Your task to perform on an android device: When is my next meeting? Image 0: 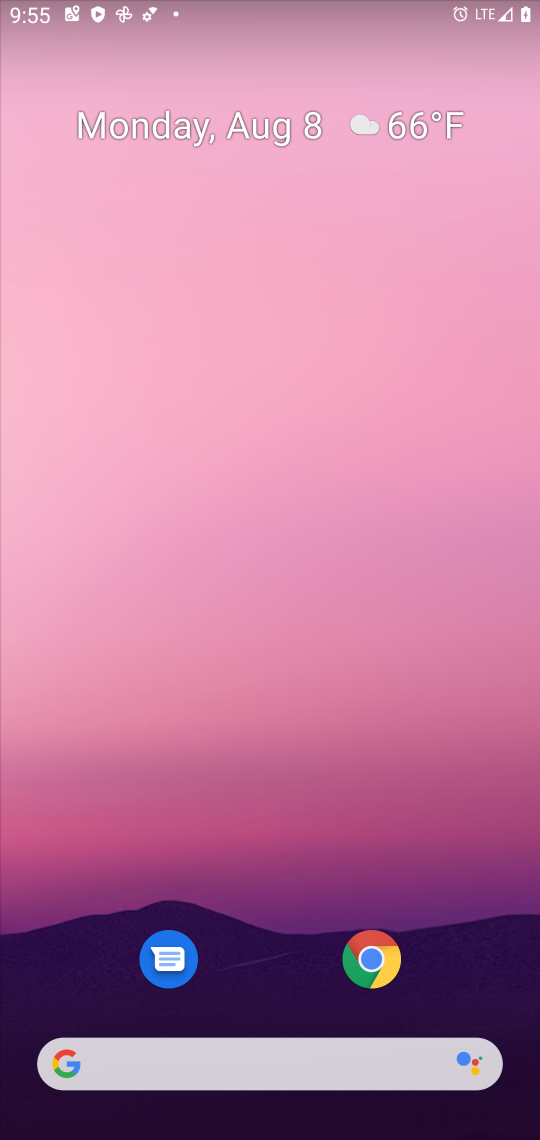
Step 0: drag from (515, 941) to (249, 57)
Your task to perform on an android device: When is my next meeting? Image 1: 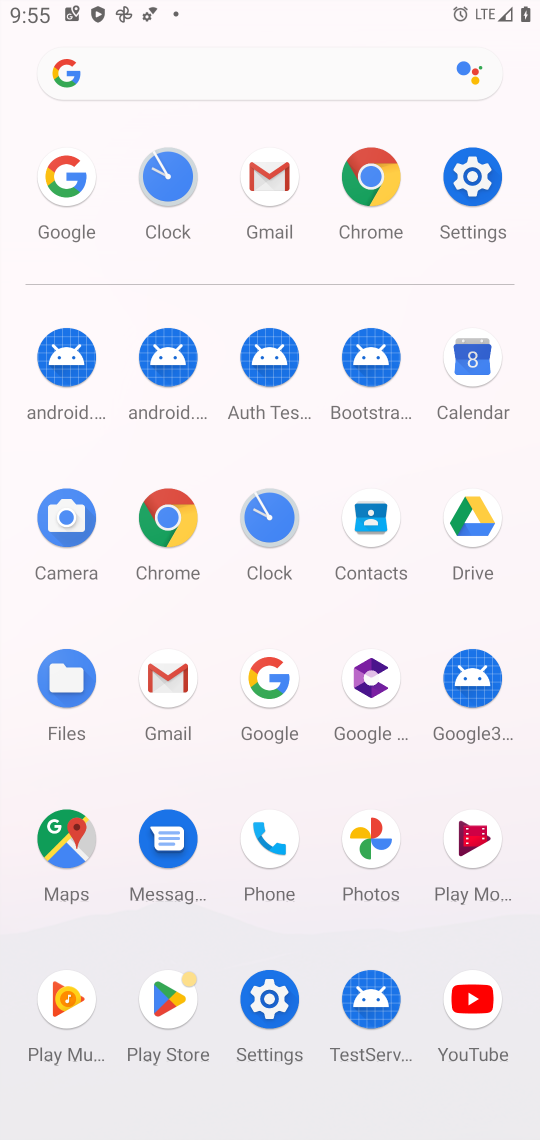
Step 1: click (484, 343)
Your task to perform on an android device: When is my next meeting? Image 2: 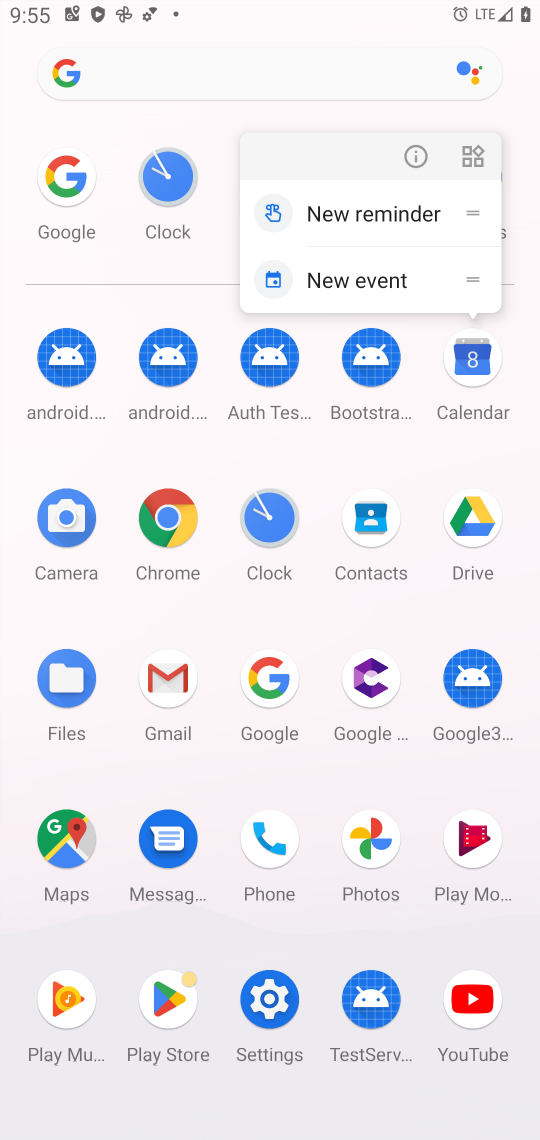
Step 2: click (460, 367)
Your task to perform on an android device: When is my next meeting? Image 3: 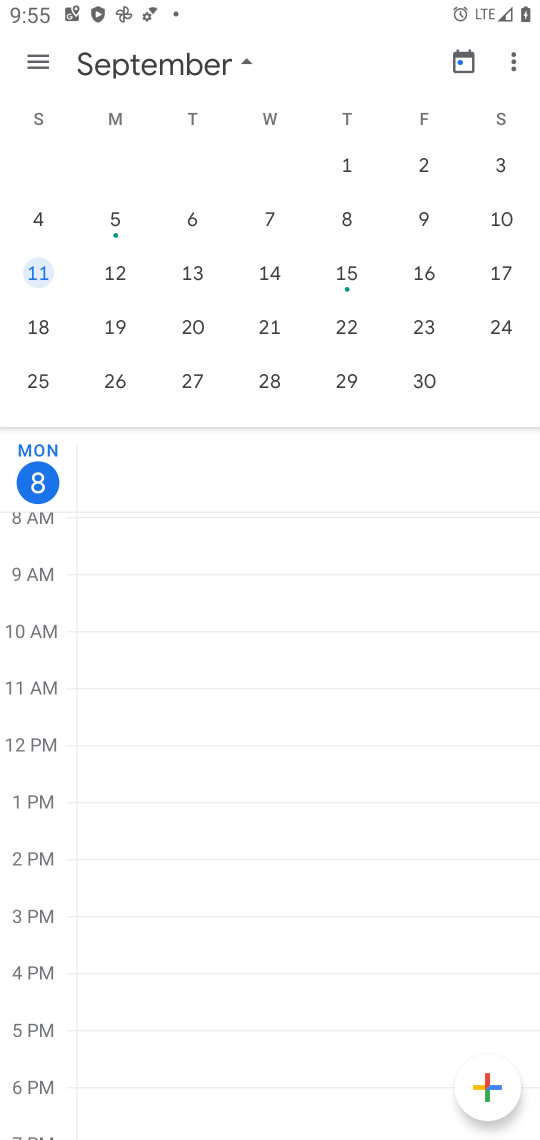
Step 3: task complete